Your task to perform on an android device: Add logitech g933 to the cart on target Image 0: 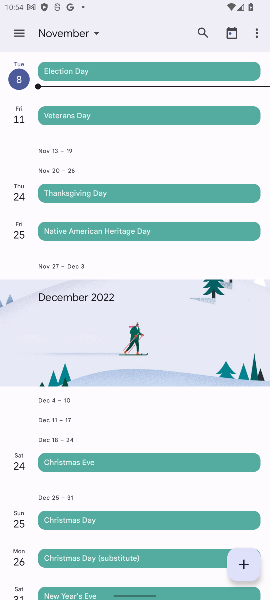
Step 0: press home button
Your task to perform on an android device: Add logitech g933 to the cart on target Image 1: 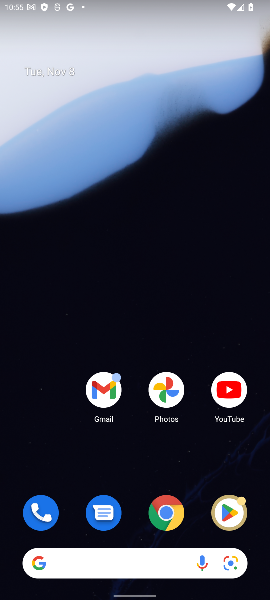
Step 1: click (165, 510)
Your task to perform on an android device: Add logitech g933 to the cart on target Image 2: 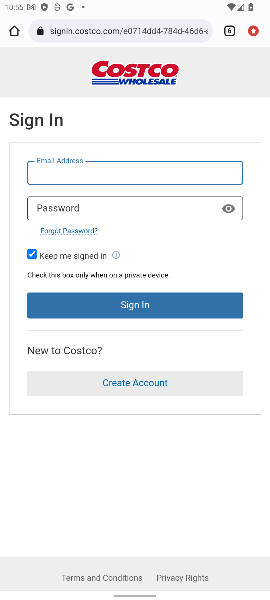
Step 2: click (230, 27)
Your task to perform on an android device: Add logitech g933 to the cart on target Image 3: 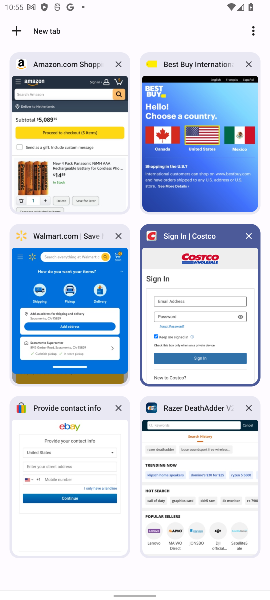
Step 3: click (17, 29)
Your task to perform on an android device: Add logitech g933 to the cart on target Image 4: 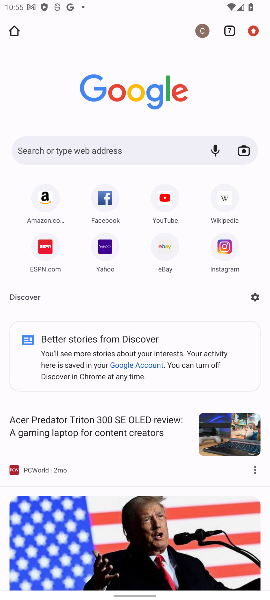
Step 4: click (99, 147)
Your task to perform on an android device: Add logitech g933 to the cart on target Image 5: 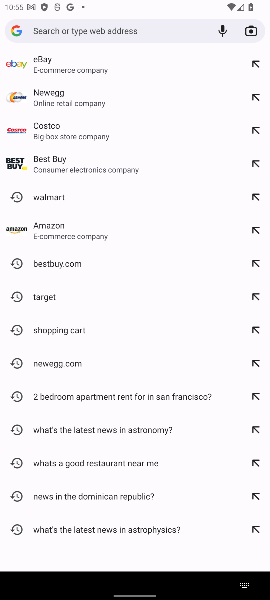
Step 5: click (44, 295)
Your task to perform on an android device: Add logitech g933 to the cart on target Image 6: 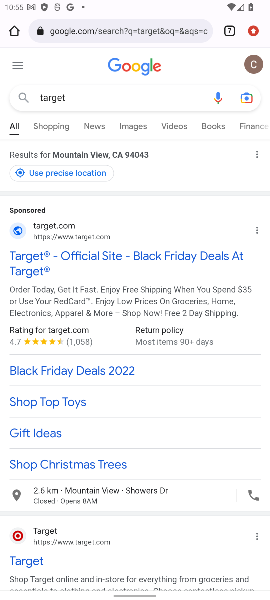
Step 6: drag from (123, 534) to (206, 260)
Your task to perform on an android device: Add logitech g933 to the cart on target Image 7: 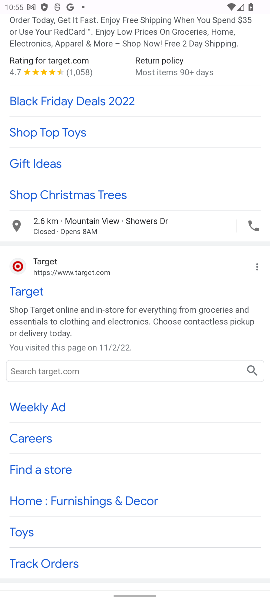
Step 7: click (34, 370)
Your task to perform on an android device: Add logitech g933 to the cart on target Image 8: 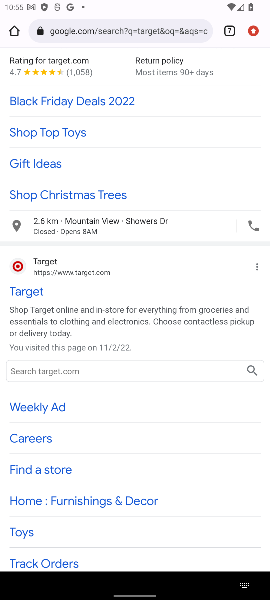
Step 8: type "logitech g933"
Your task to perform on an android device: Add logitech g933 to the cart on target Image 9: 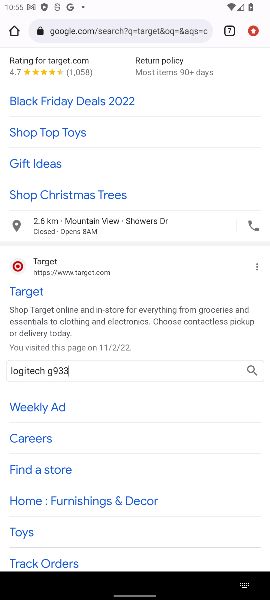
Step 9: click (249, 366)
Your task to perform on an android device: Add logitech g933 to the cart on target Image 10: 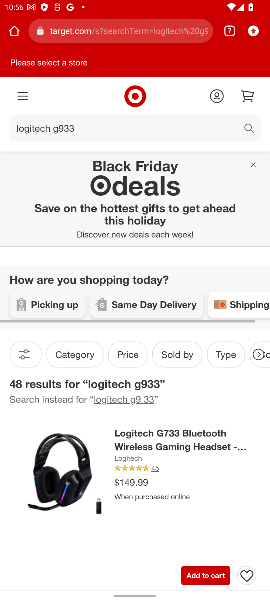
Step 10: click (195, 571)
Your task to perform on an android device: Add logitech g933 to the cart on target Image 11: 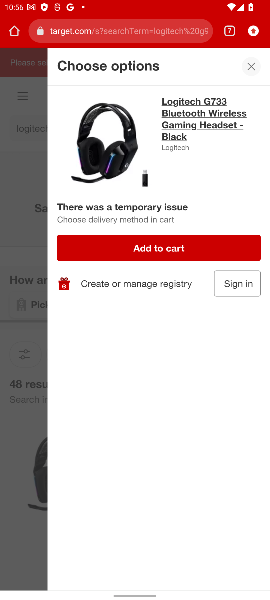
Step 11: click (194, 241)
Your task to perform on an android device: Add logitech g933 to the cart on target Image 12: 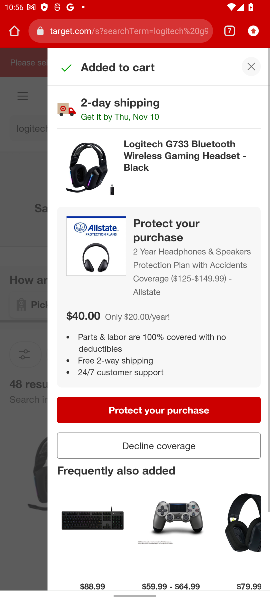
Step 12: task complete